Your task to perform on an android device: Add "macbook air" to the cart on amazon Image 0: 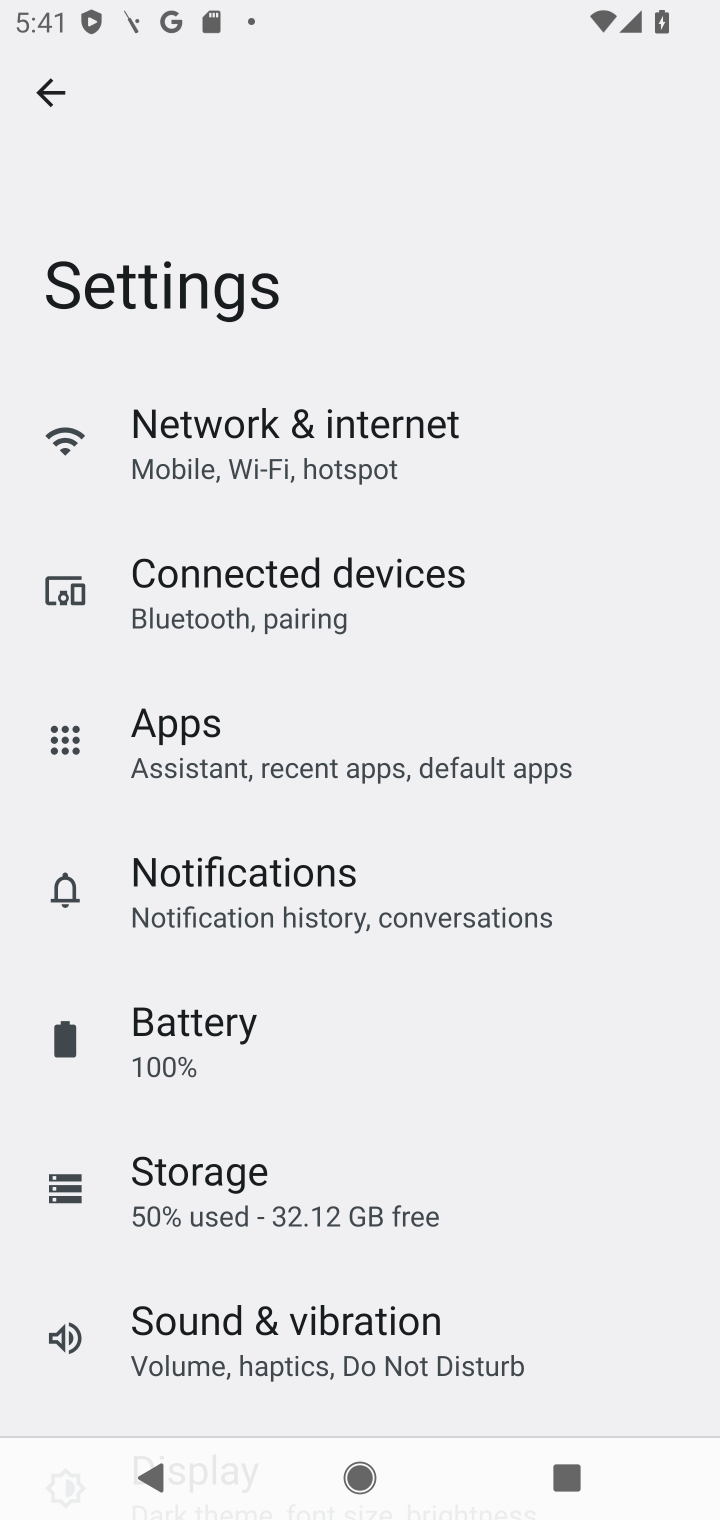
Step 0: press home button
Your task to perform on an android device: Add "macbook air" to the cart on amazon Image 1: 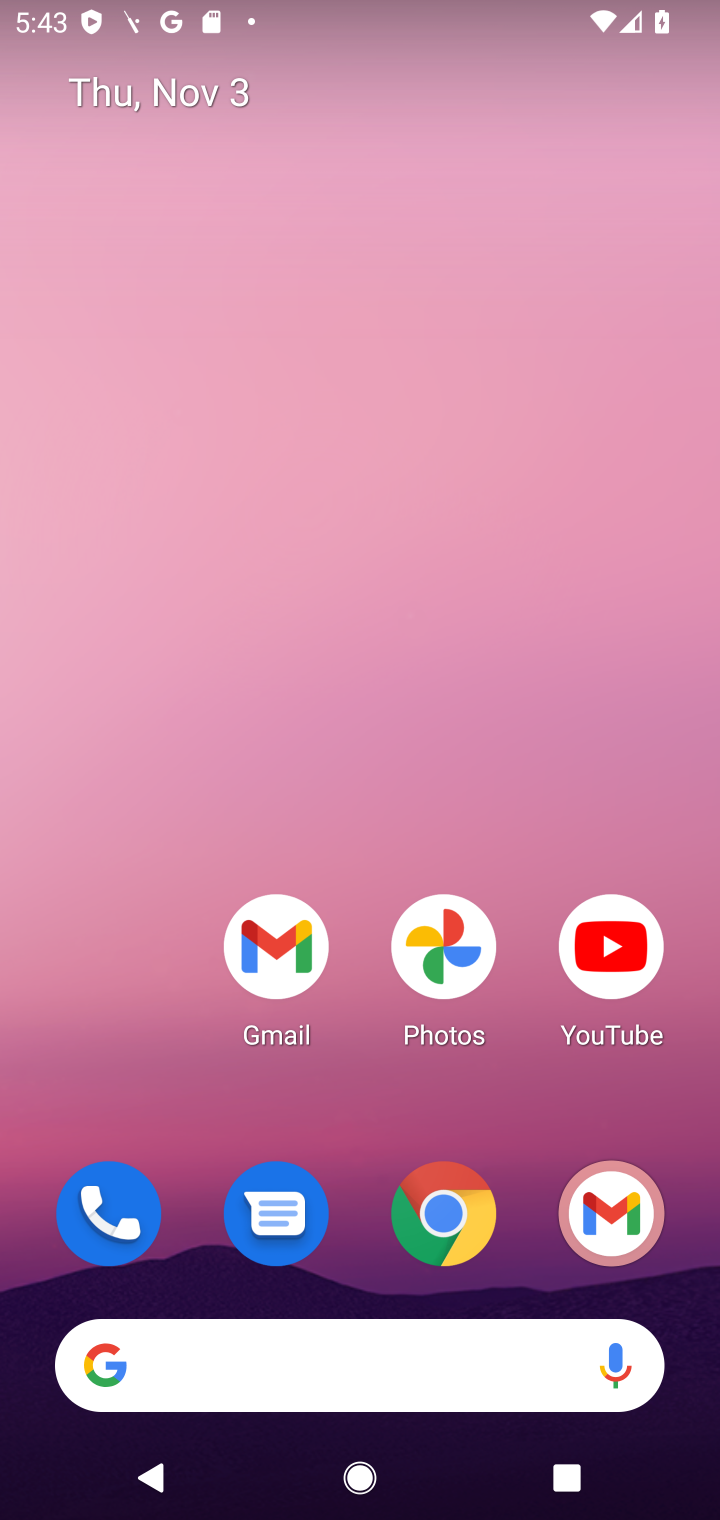
Step 1: click (457, 1225)
Your task to perform on an android device: Add "macbook air" to the cart on amazon Image 2: 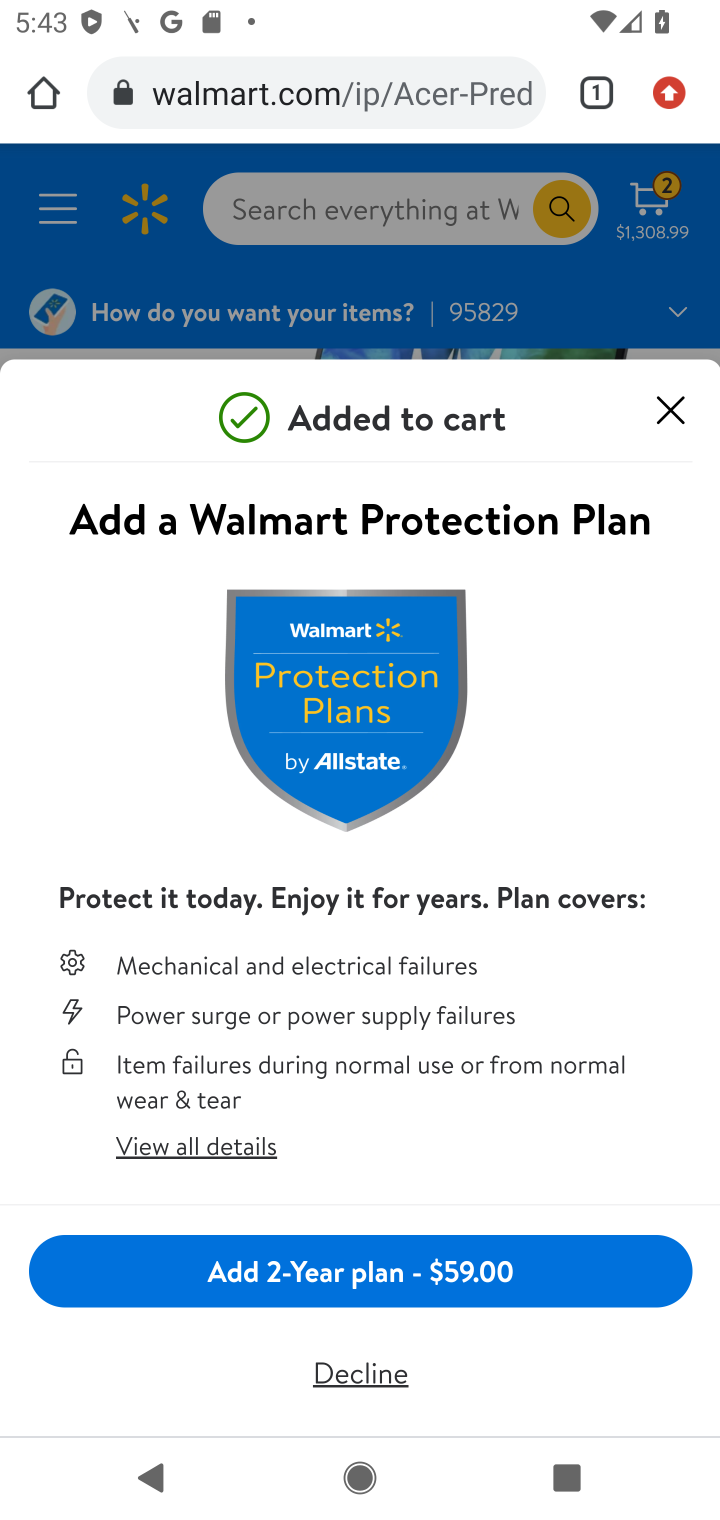
Step 2: click (287, 100)
Your task to perform on an android device: Add "macbook air" to the cart on amazon Image 3: 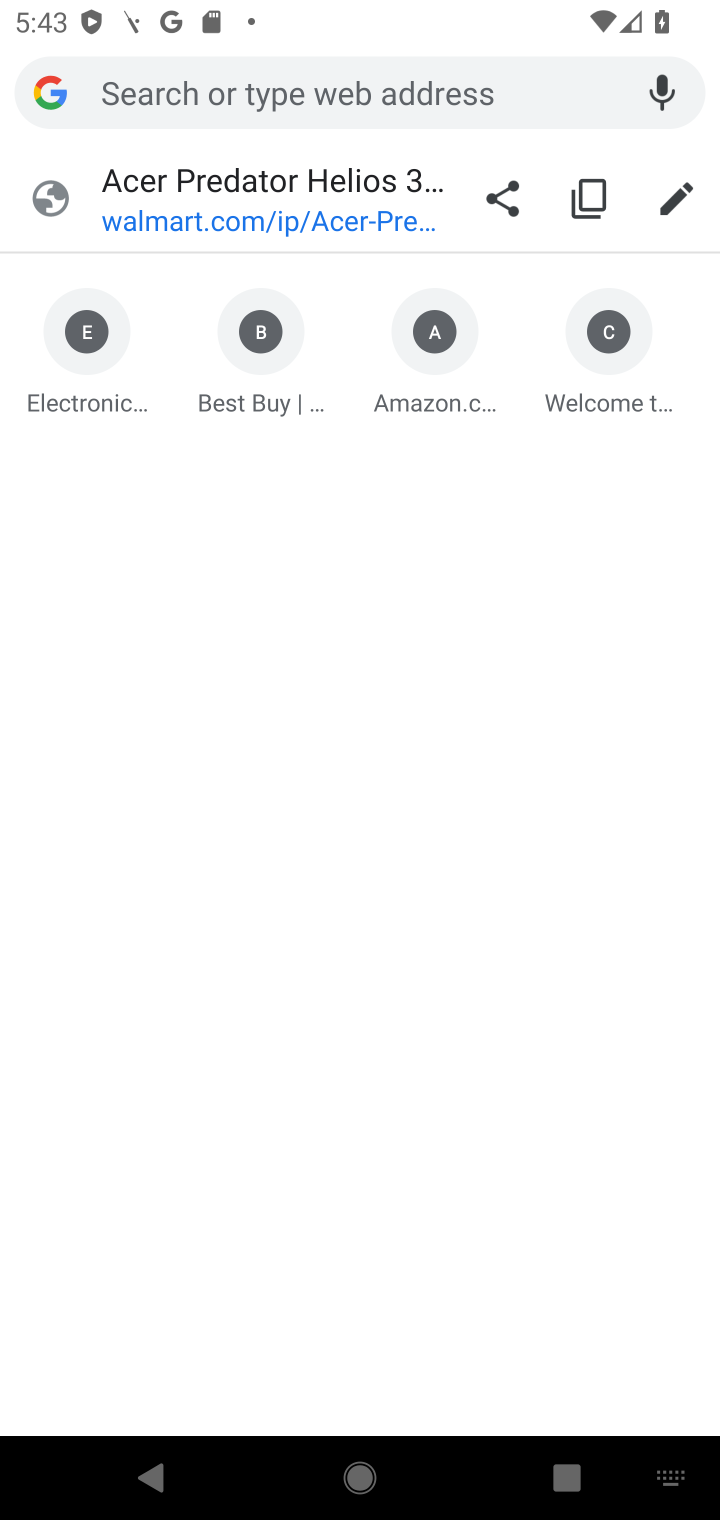
Step 3: click (443, 344)
Your task to perform on an android device: Add "macbook air" to the cart on amazon Image 4: 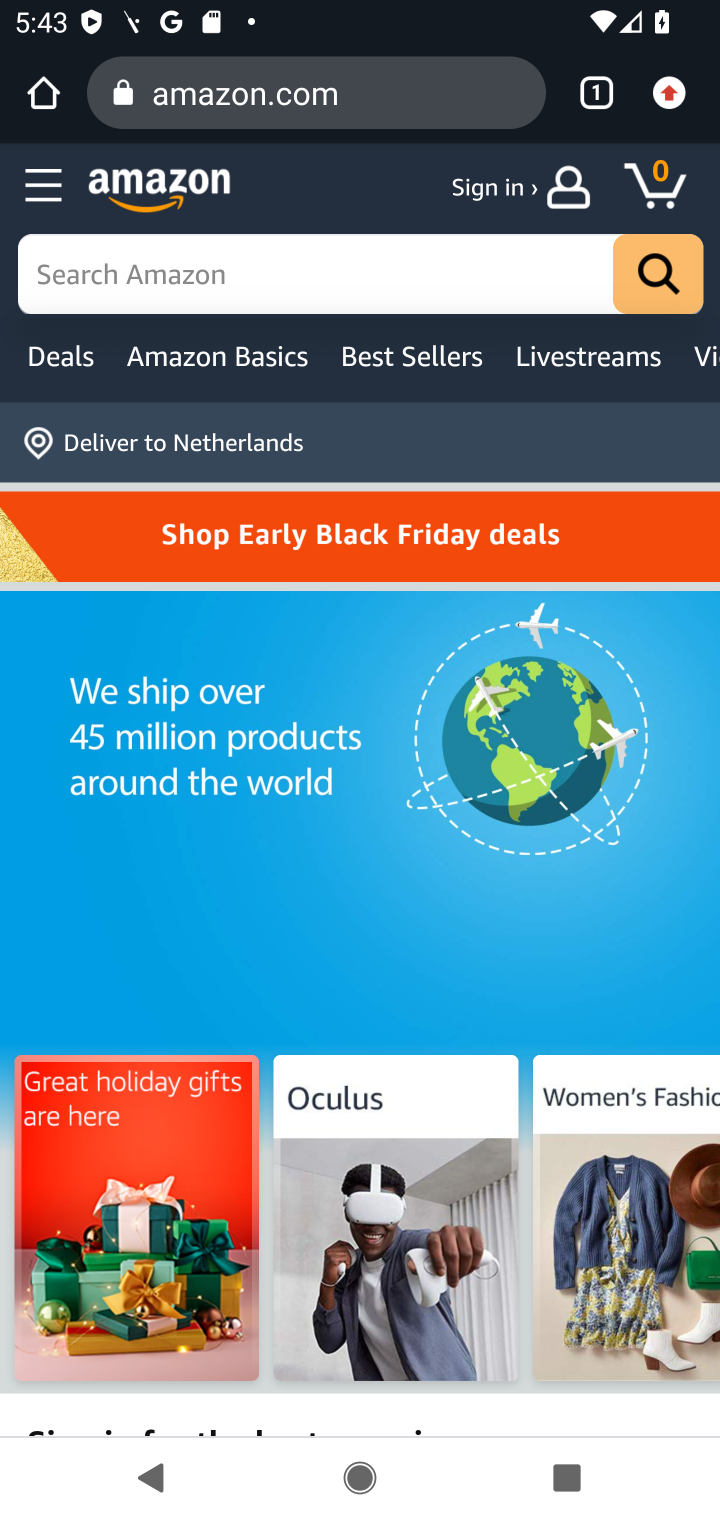
Step 4: click (223, 277)
Your task to perform on an android device: Add "macbook air" to the cart on amazon Image 5: 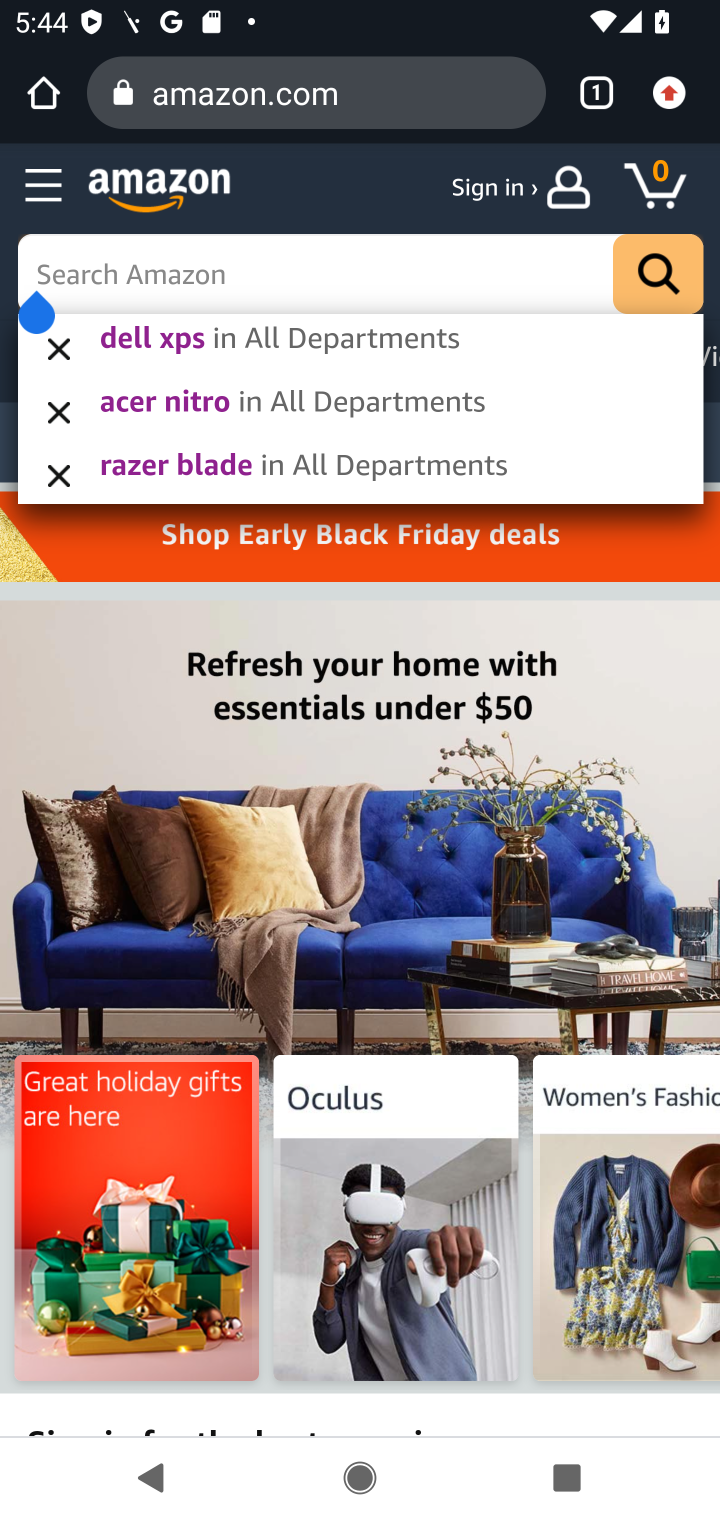
Step 5: type "macbook air"
Your task to perform on an android device: Add "macbook air" to the cart on amazon Image 6: 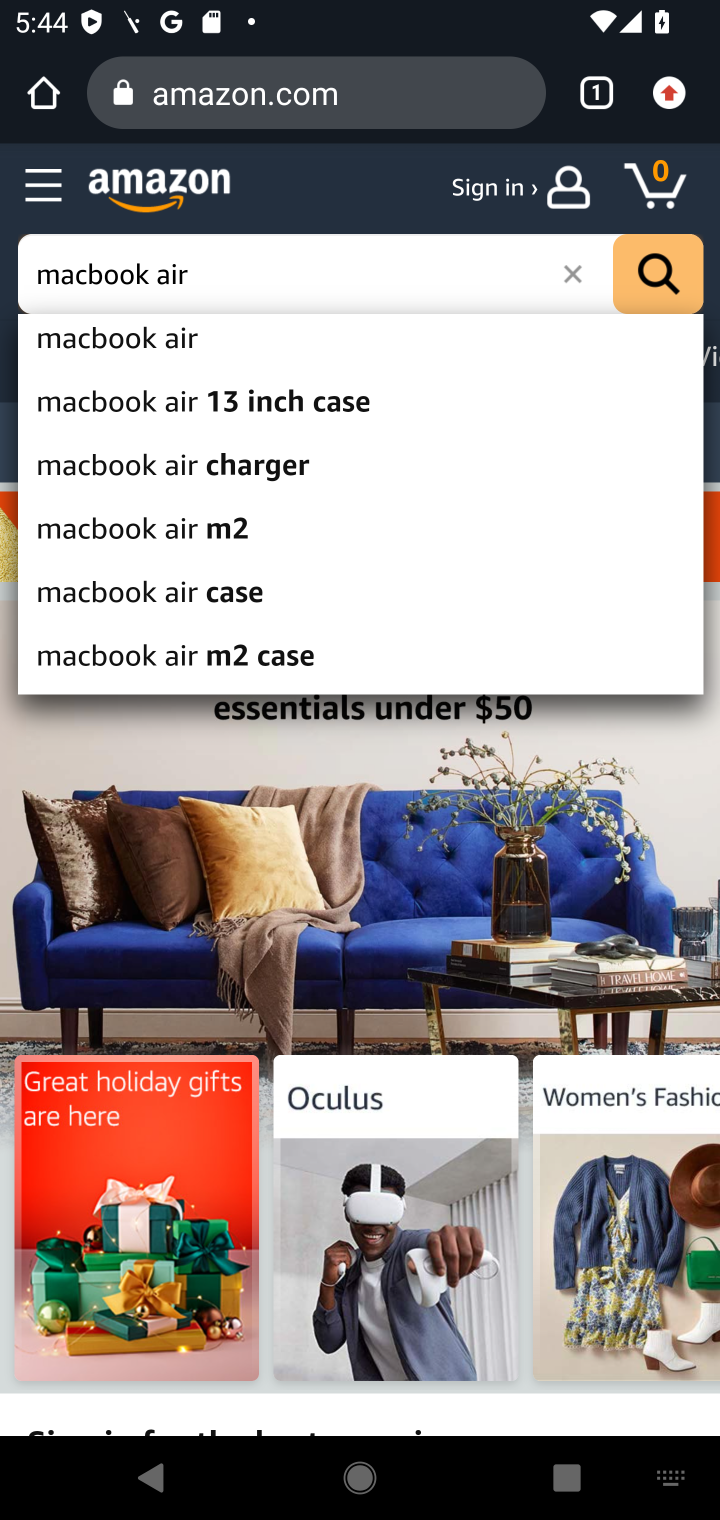
Step 6: click (77, 356)
Your task to perform on an android device: Add "macbook air" to the cart on amazon Image 7: 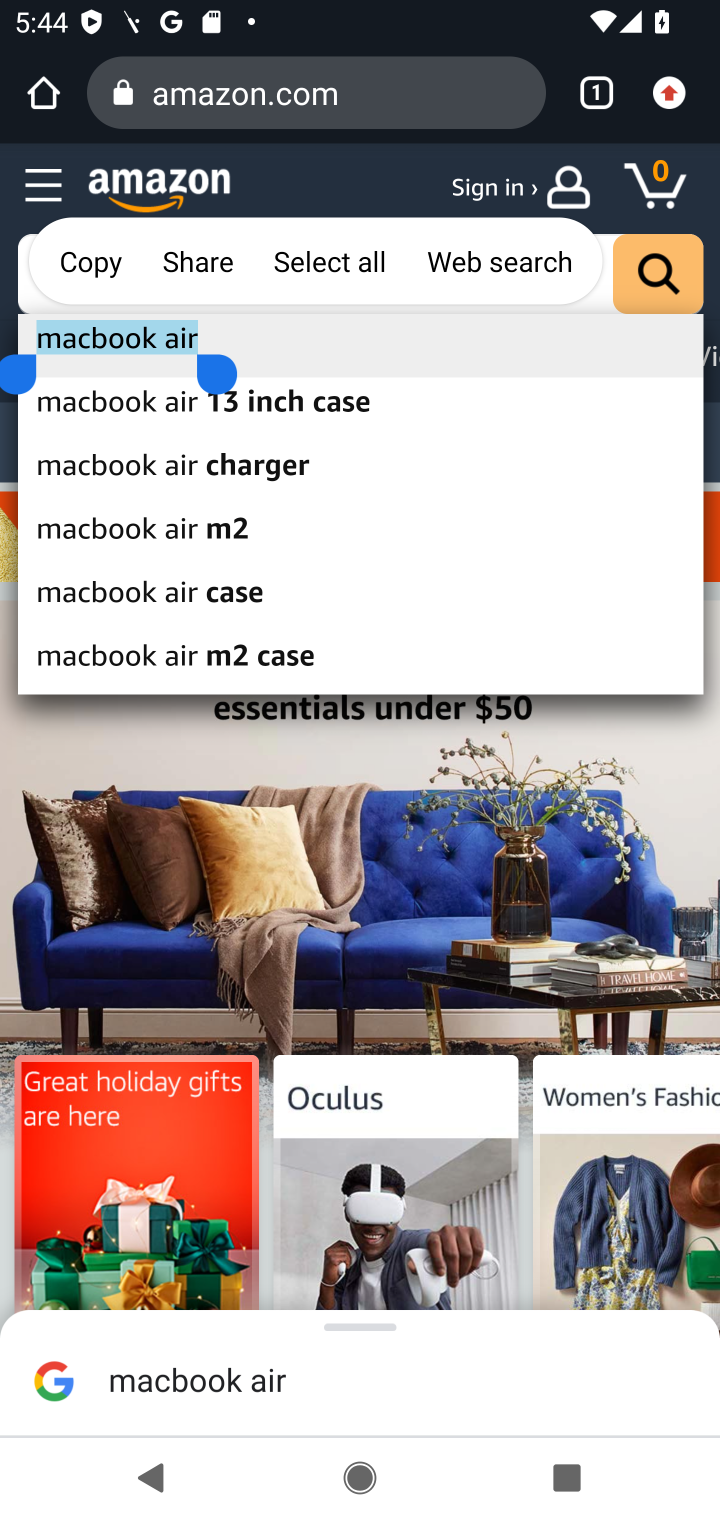
Step 7: click (175, 366)
Your task to perform on an android device: Add "macbook air" to the cart on amazon Image 8: 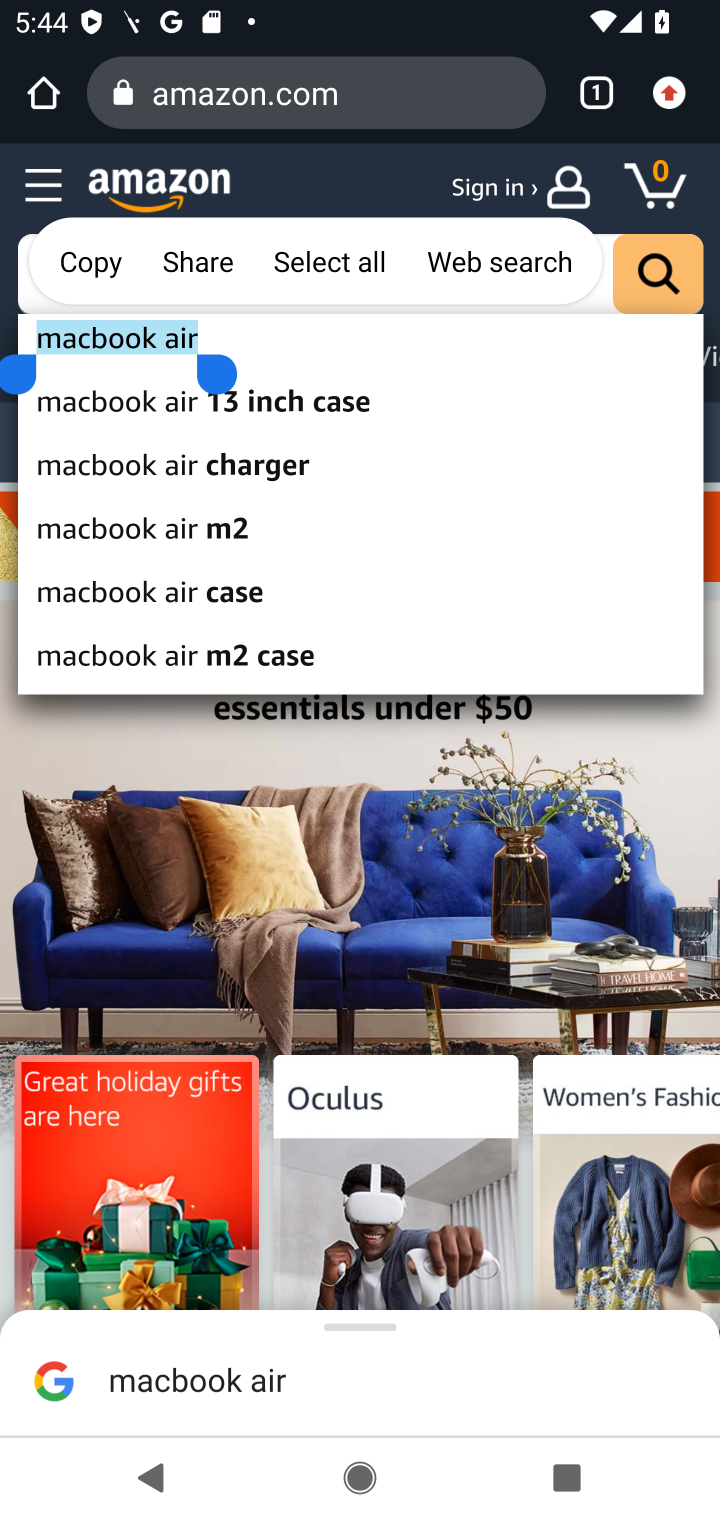
Step 8: click (163, 346)
Your task to perform on an android device: Add "macbook air" to the cart on amazon Image 9: 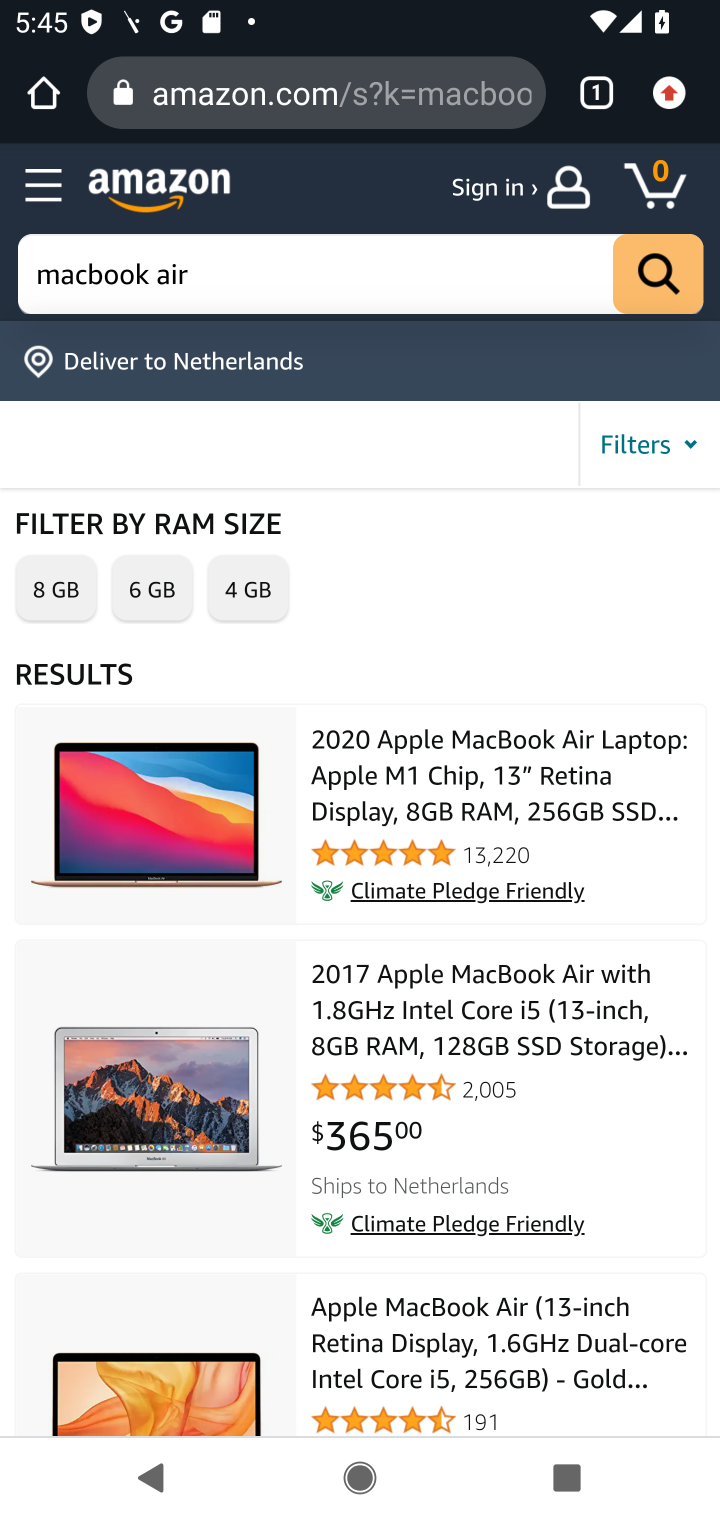
Step 9: click (445, 846)
Your task to perform on an android device: Add "macbook air" to the cart on amazon Image 10: 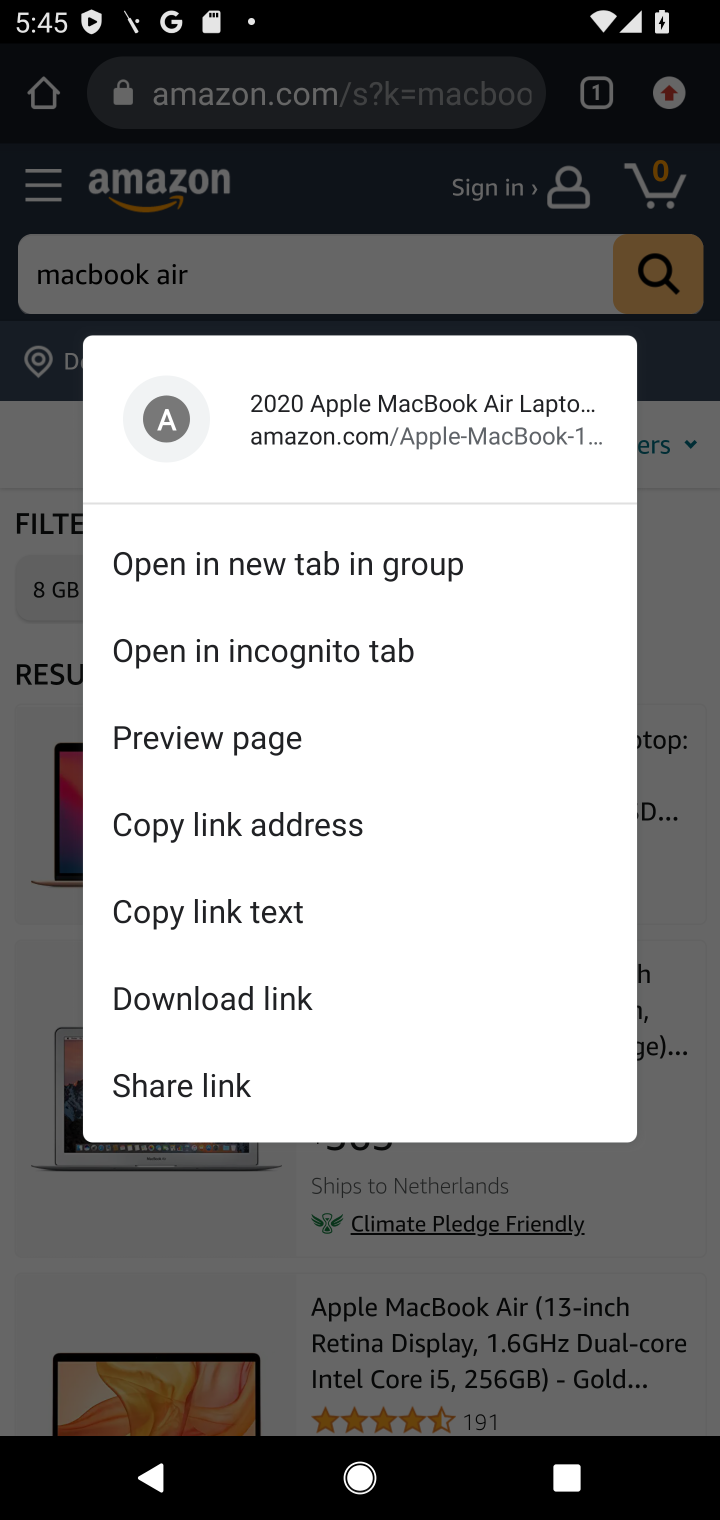
Step 10: click (677, 797)
Your task to perform on an android device: Add "macbook air" to the cart on amazon Image 11: 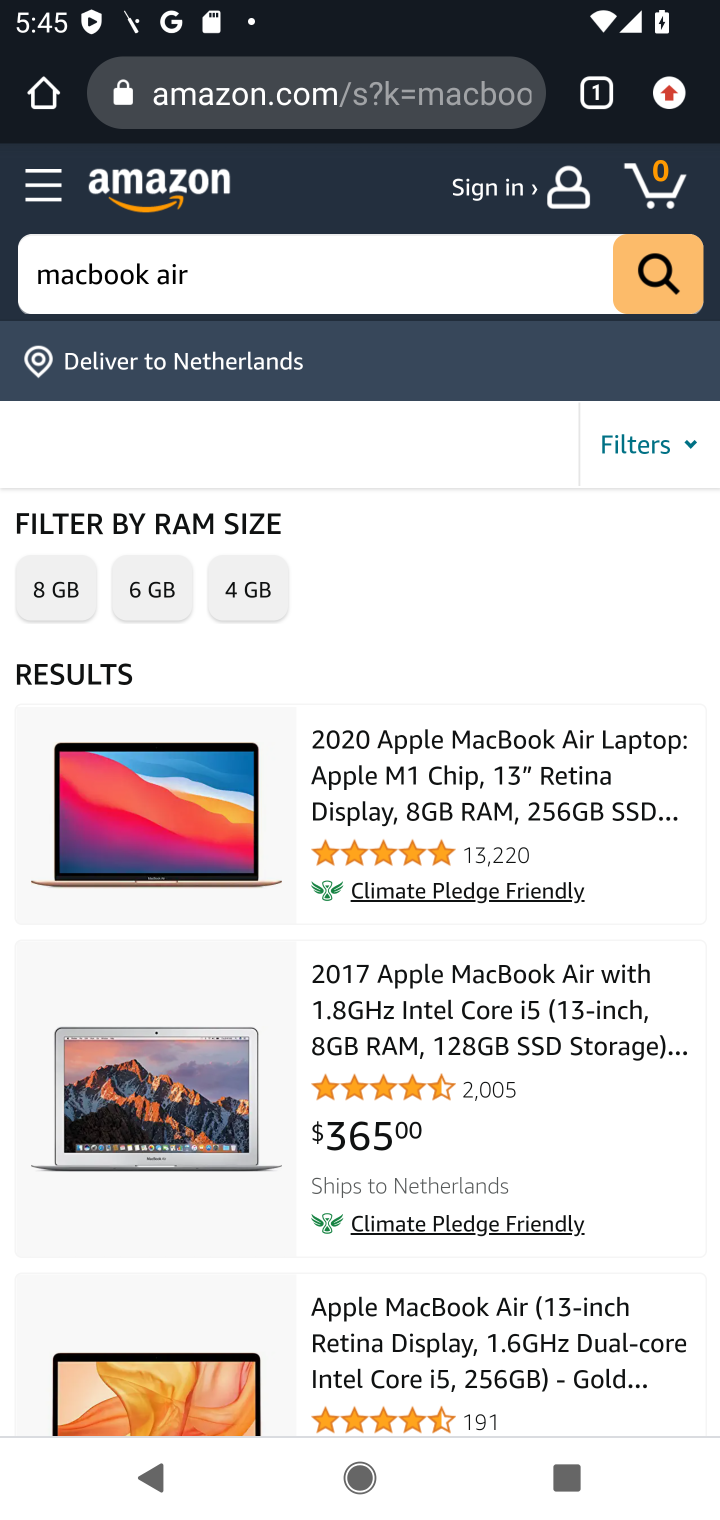
Step 11: click (236, 834)
Your task to perform on an android device: Add "macbook air" to the cart on amazon Image 12: 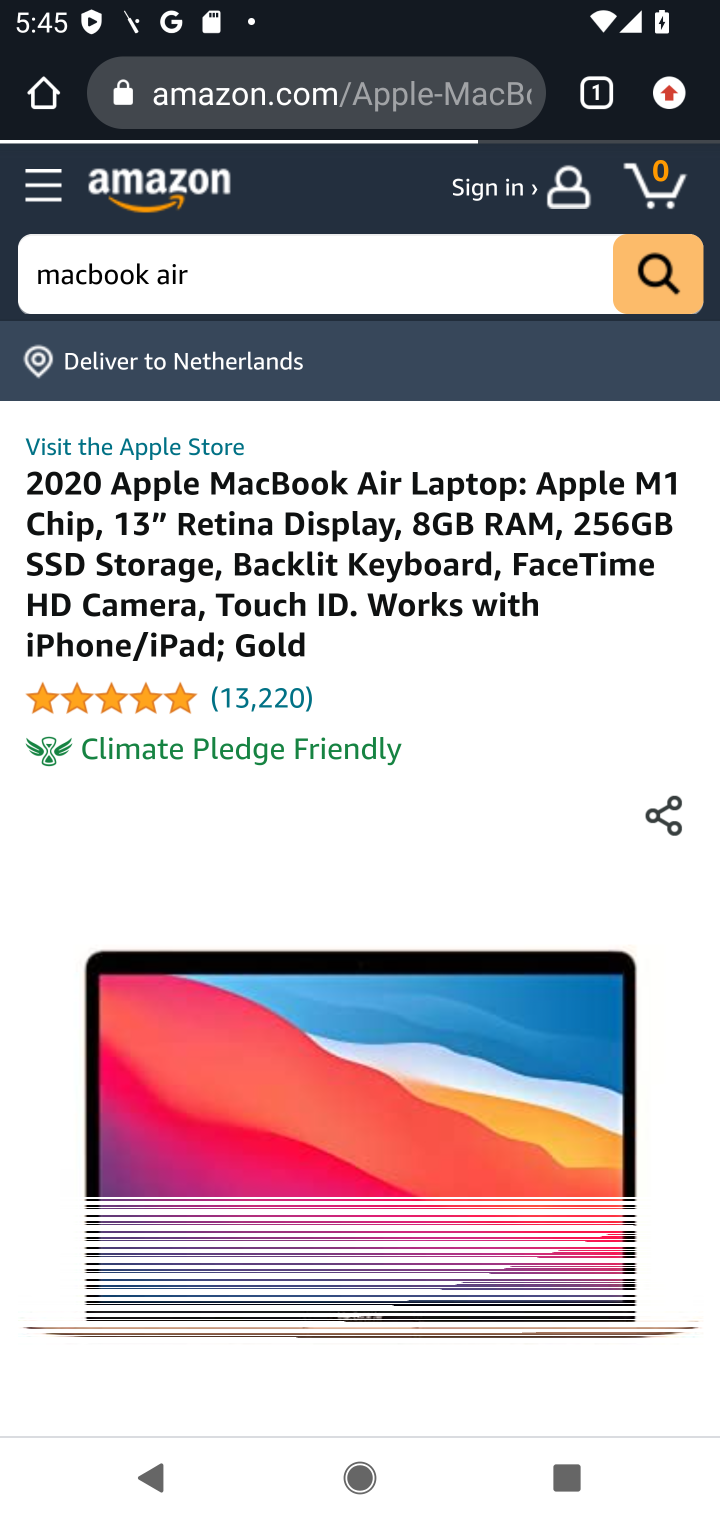
Step 12: drag from (290, 851) to (321, 612)
Your task to perform on an android device: Add "macbook air" to the cart on amazon Image 13: 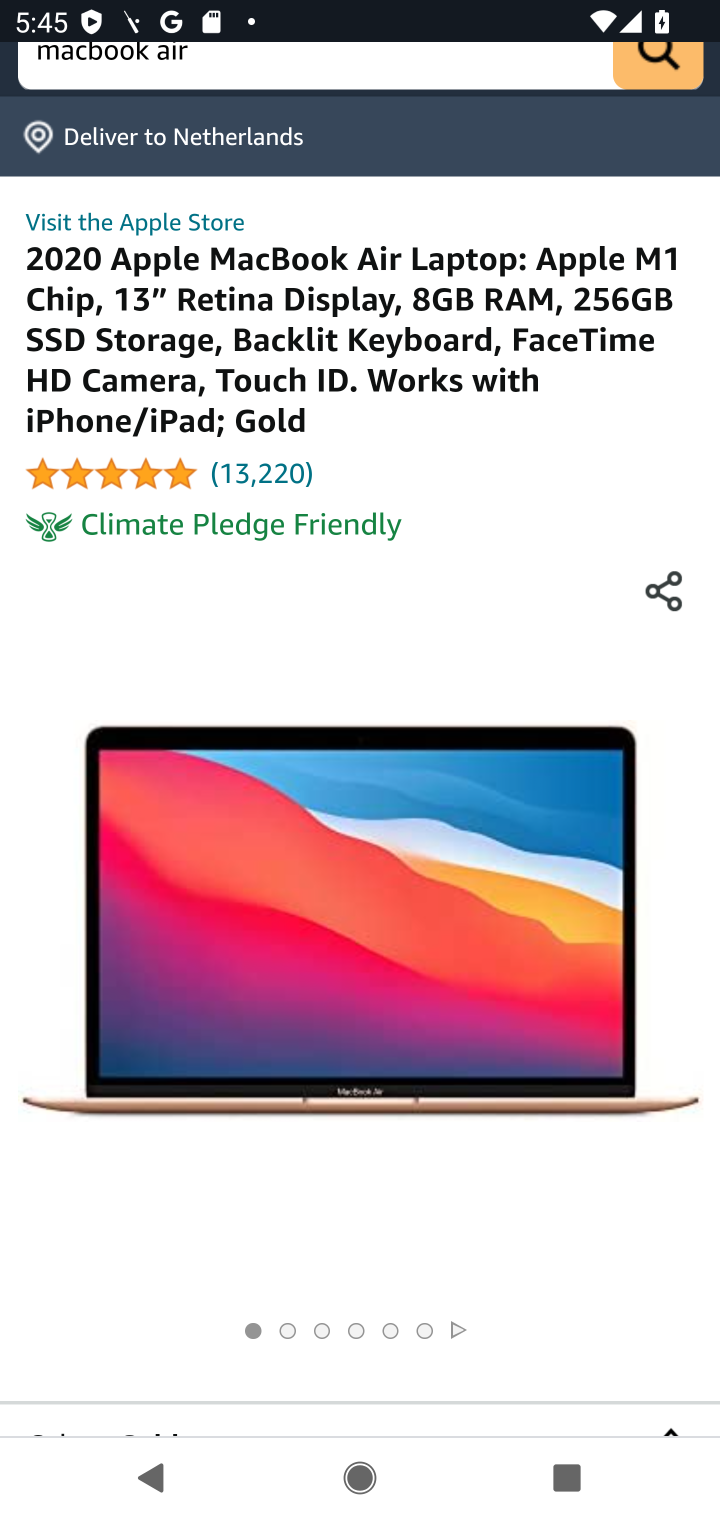
Step 13: drag from (349, 898) to (351, 468)
Your task to perform on an android device: Add "macbook air" to the cart on amazon Image 14: 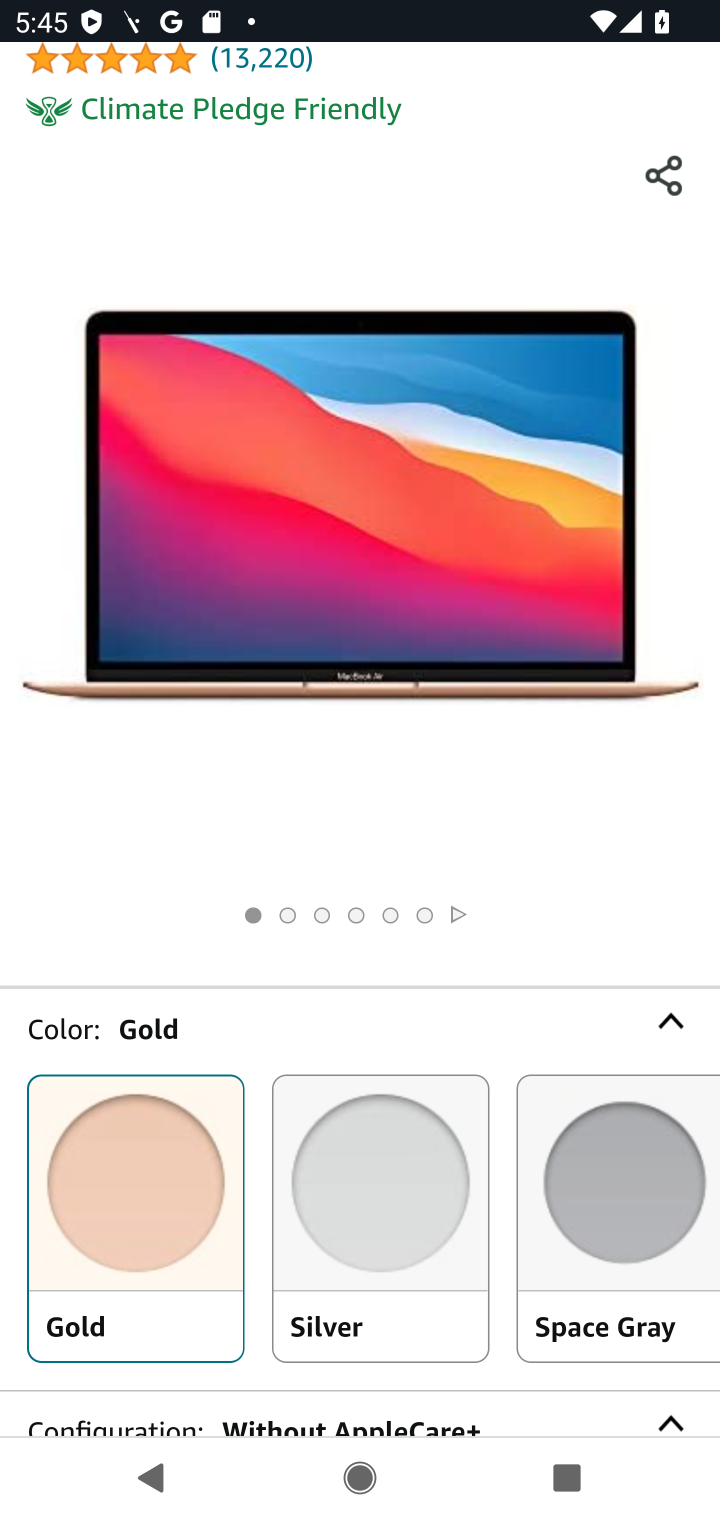
Step 14: drag from (314, 1099) to (340, 482)
Your task to perform on an android device: Add "macbook air" to the cart on amazon Image 15: 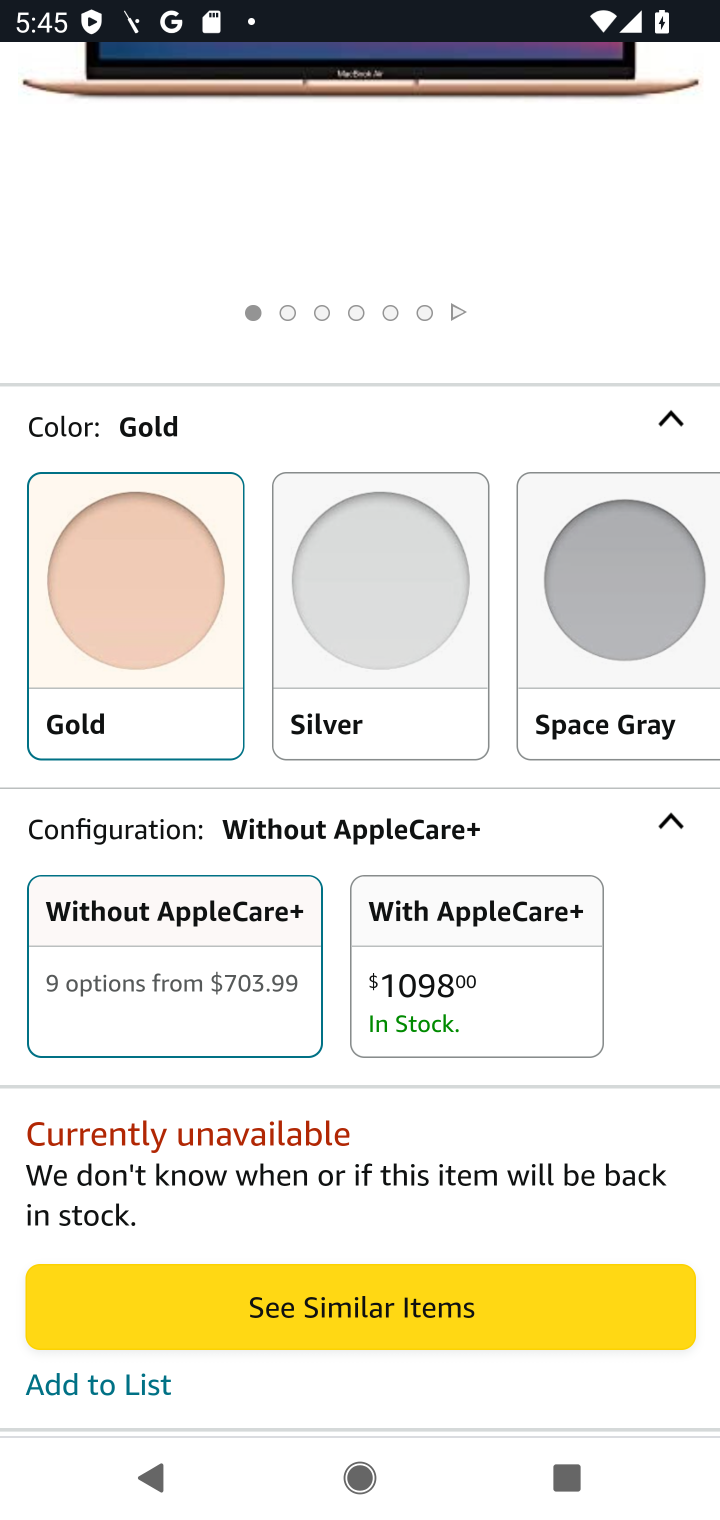
Step 15: drag from (408, 1118) to (428, 642)
Your task to perform on an android device: Add "macbook air" to the cart on amazon Image 16: 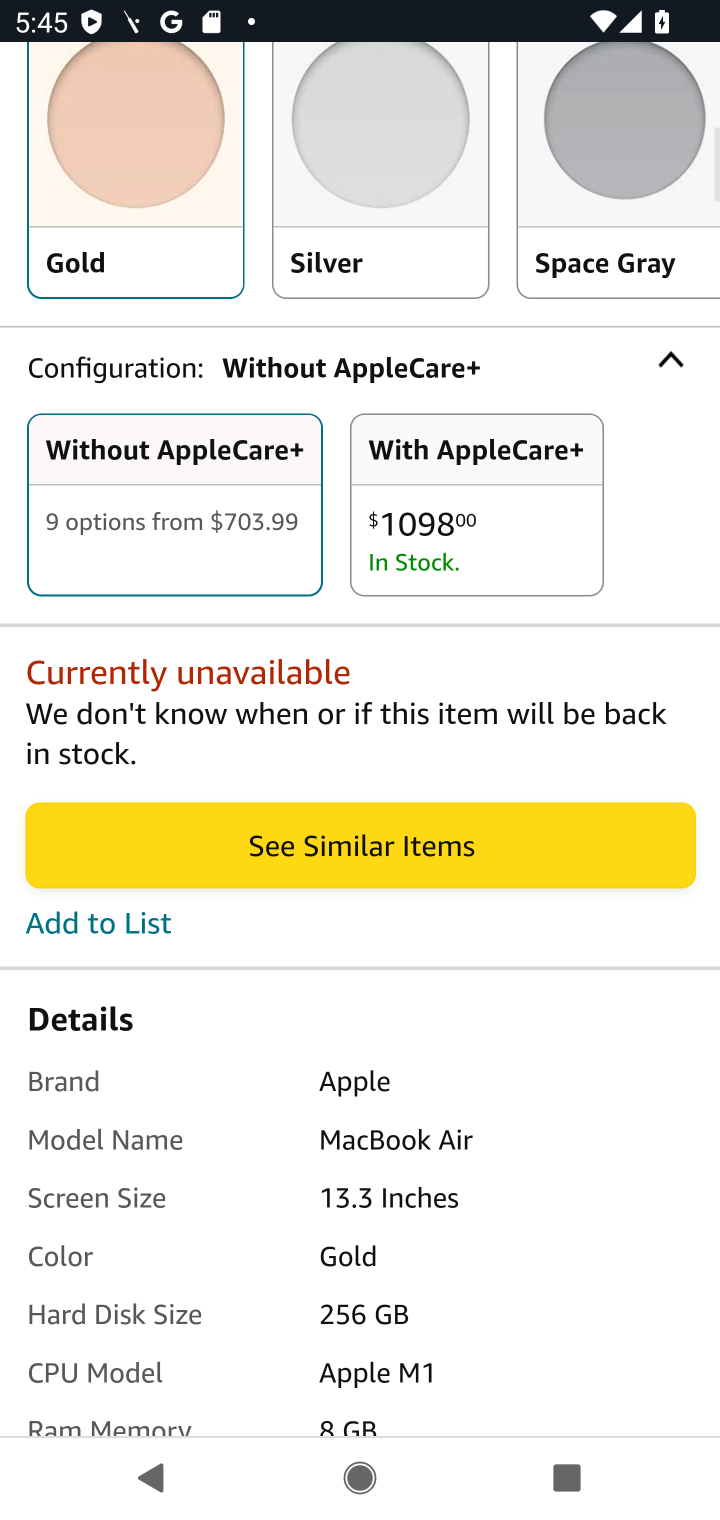
Step 16: drag from (382, 370) to (401, 1364)
Your task to perform on an android device: Add "macbook air" to the cart on amazon Image 17: 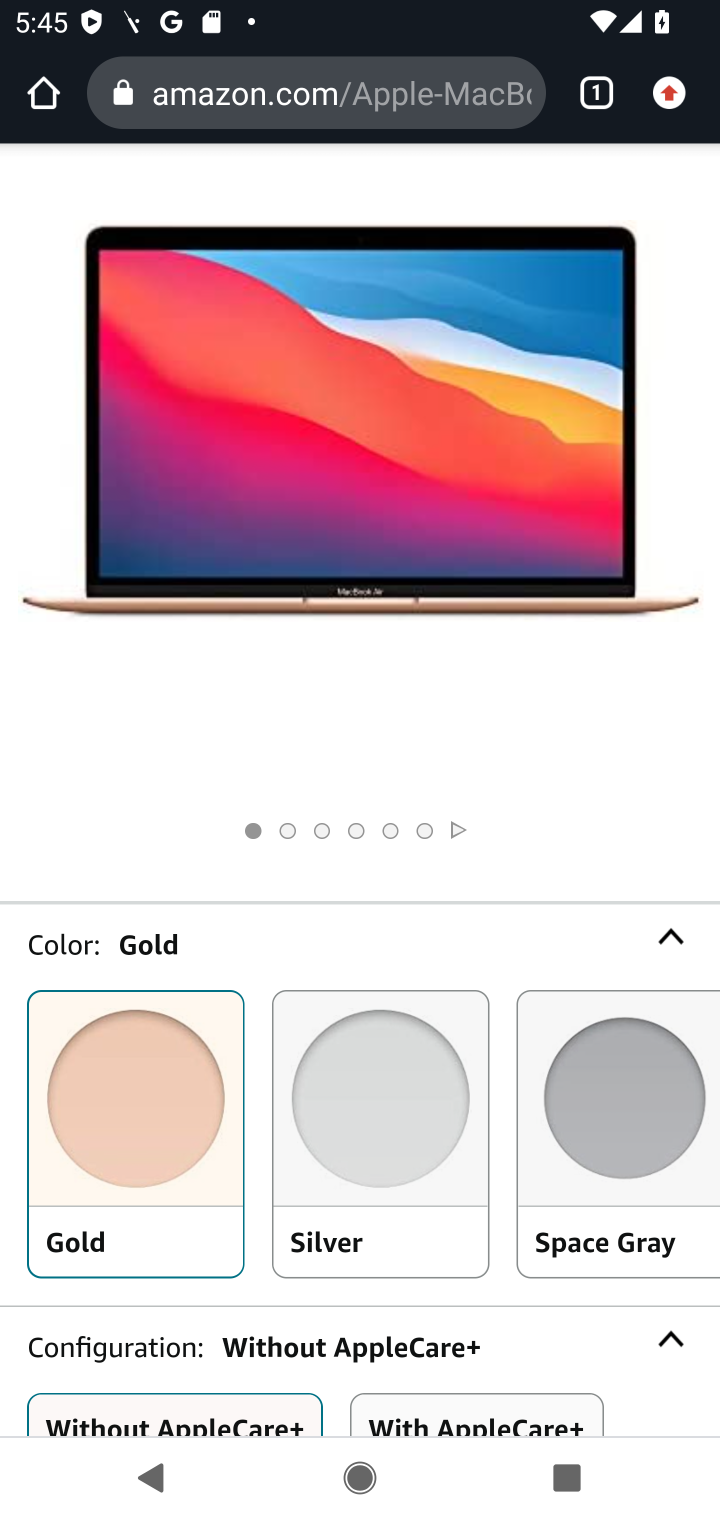
Step 17: drag from (449, 581) to (460, 1106)
Your task to perform on an android device: Add "macbook air" to the cart on amazon Image 18: 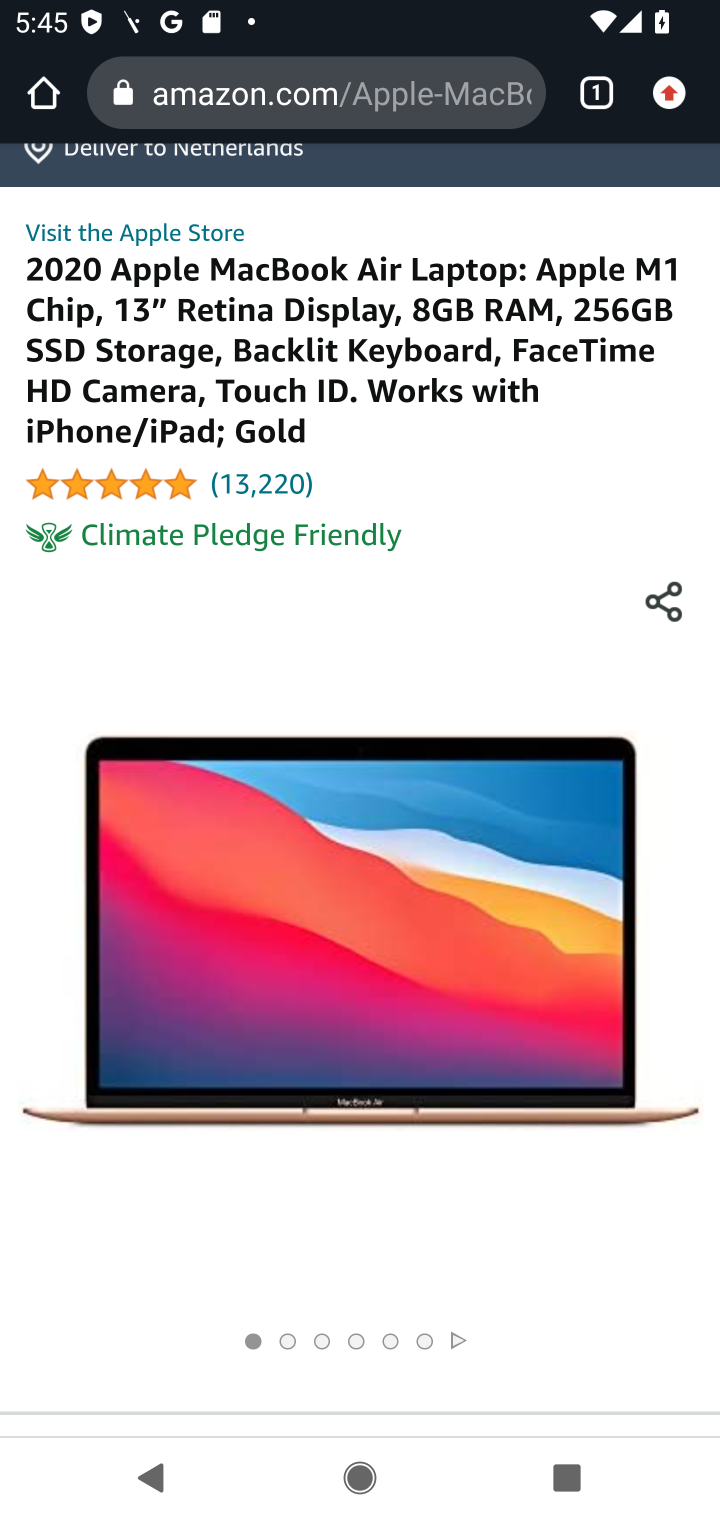
Step 18: press back button
Your task to perform on an android device: Add "macbook air" to the cart on amazon Image 19: 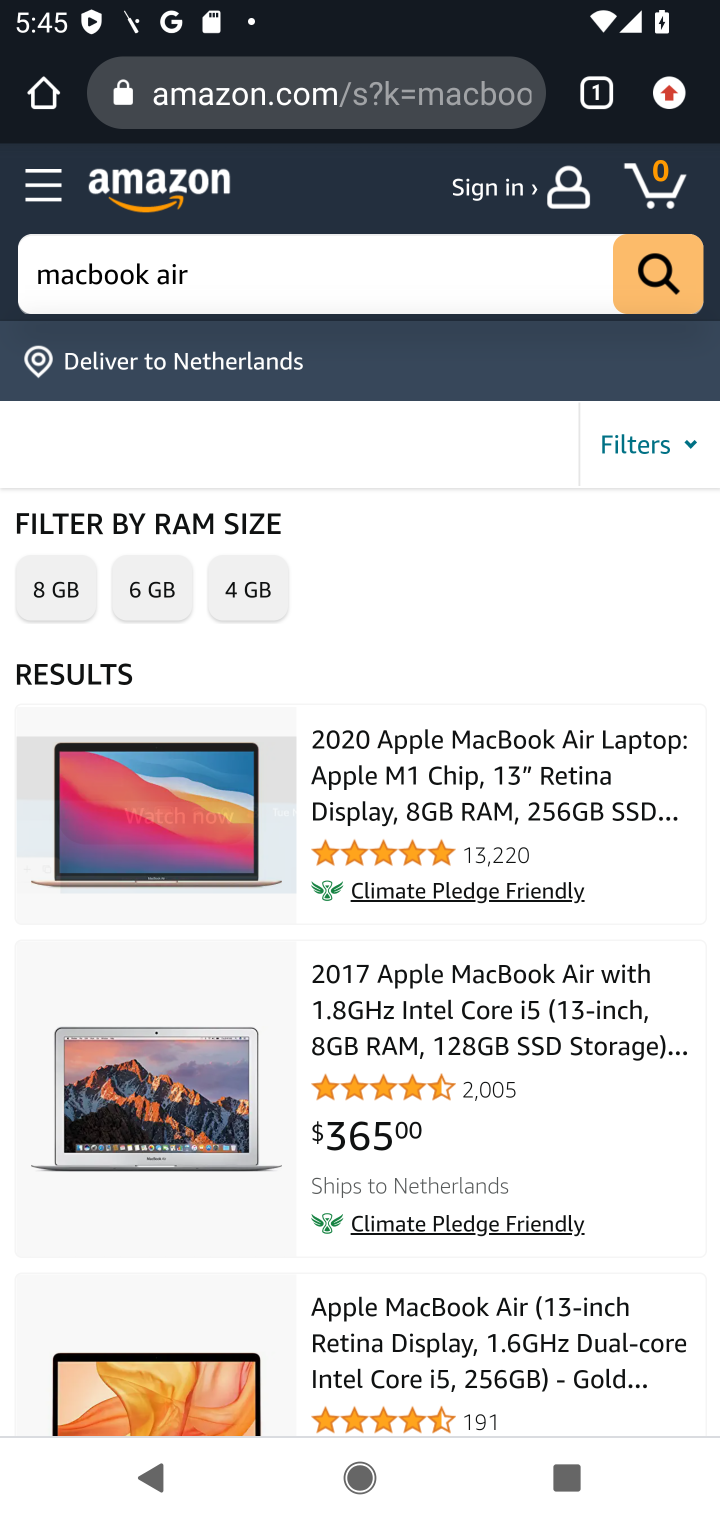
Step 19: click (402, 1063)
Your task to perform on an android device: Add "macbook air" to the cart on amazon Image 20: 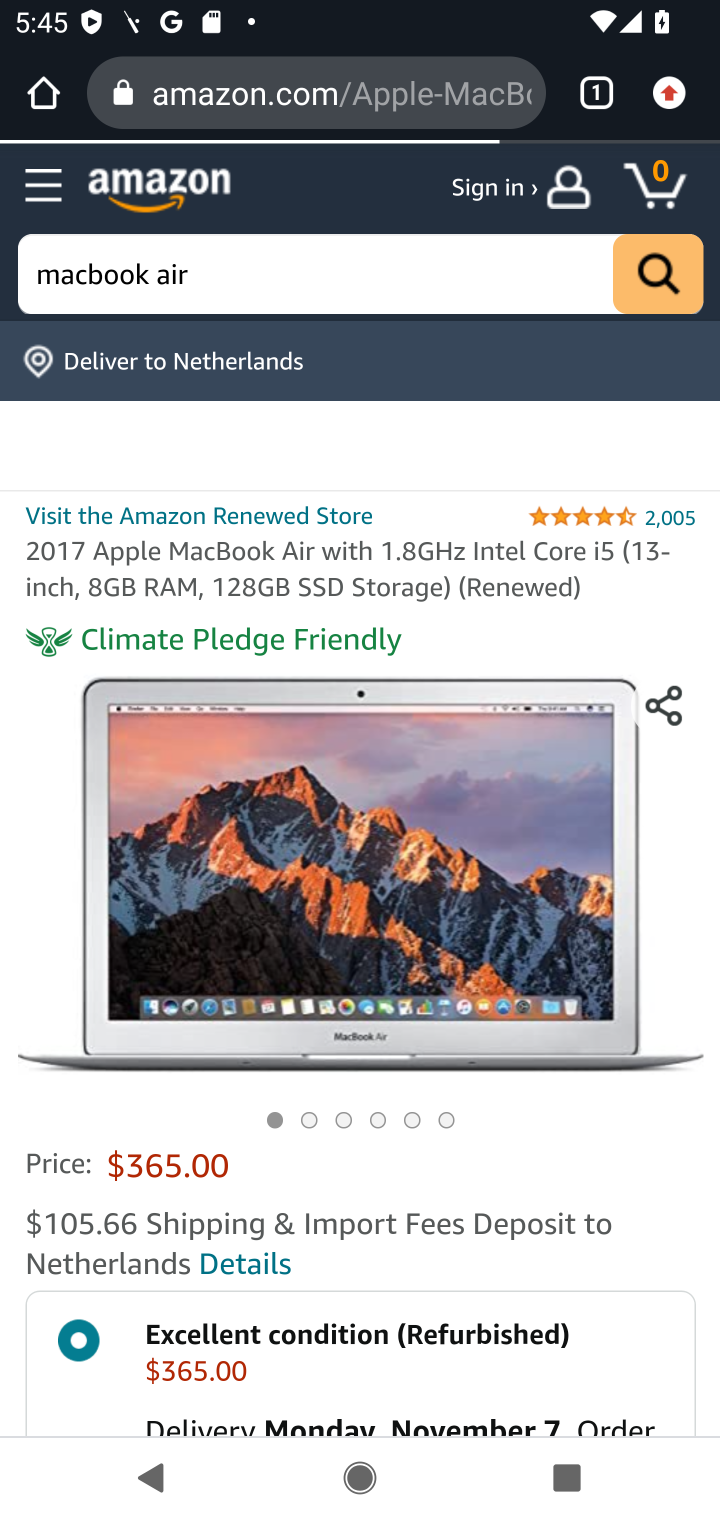
Step 20: drag from (388, 1072) to (414, 334)
Your task to perform on an android device: Add "macbook air" to the cart on amazon Image 21: 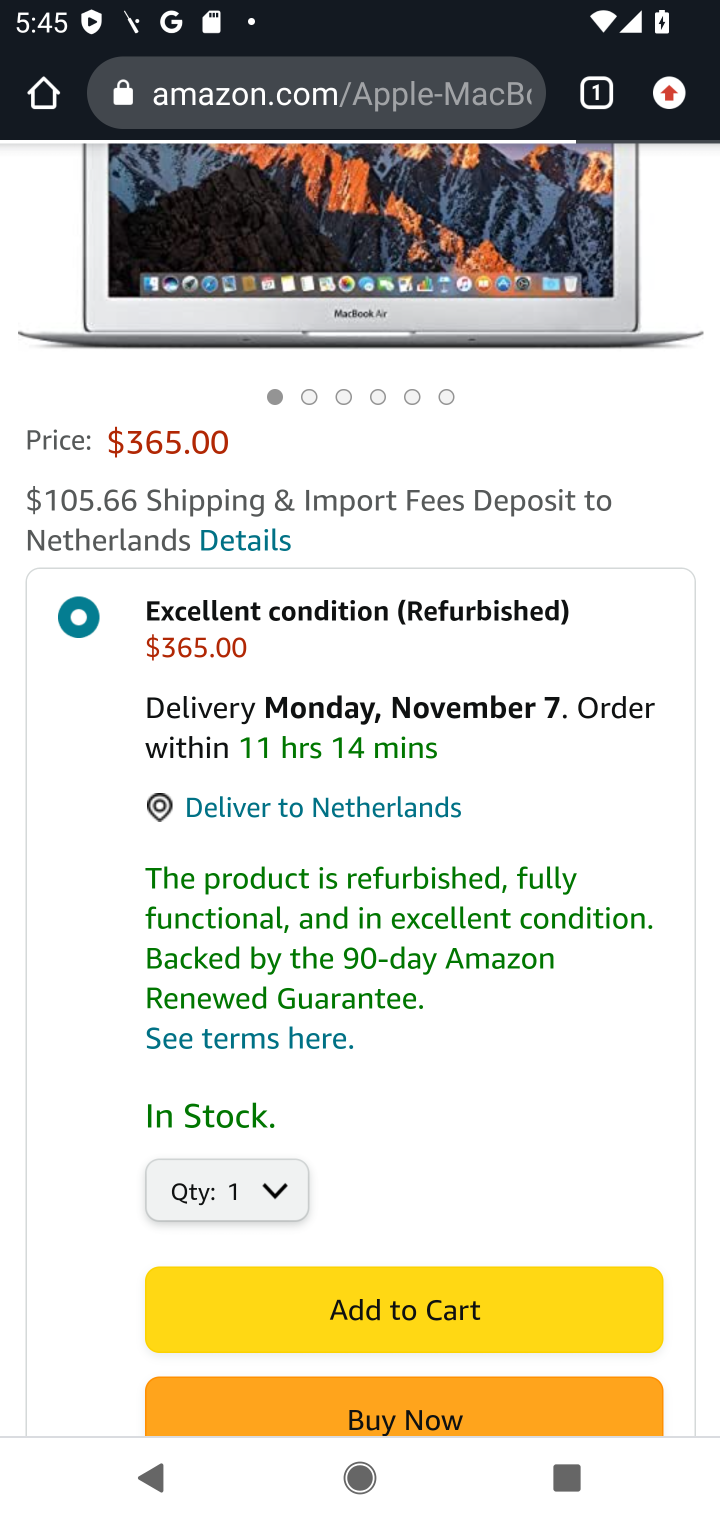
Step 21: click (364, 1308)
Your task to perform on an android device: Add "macbook air" to the cart on amazon Image 22: 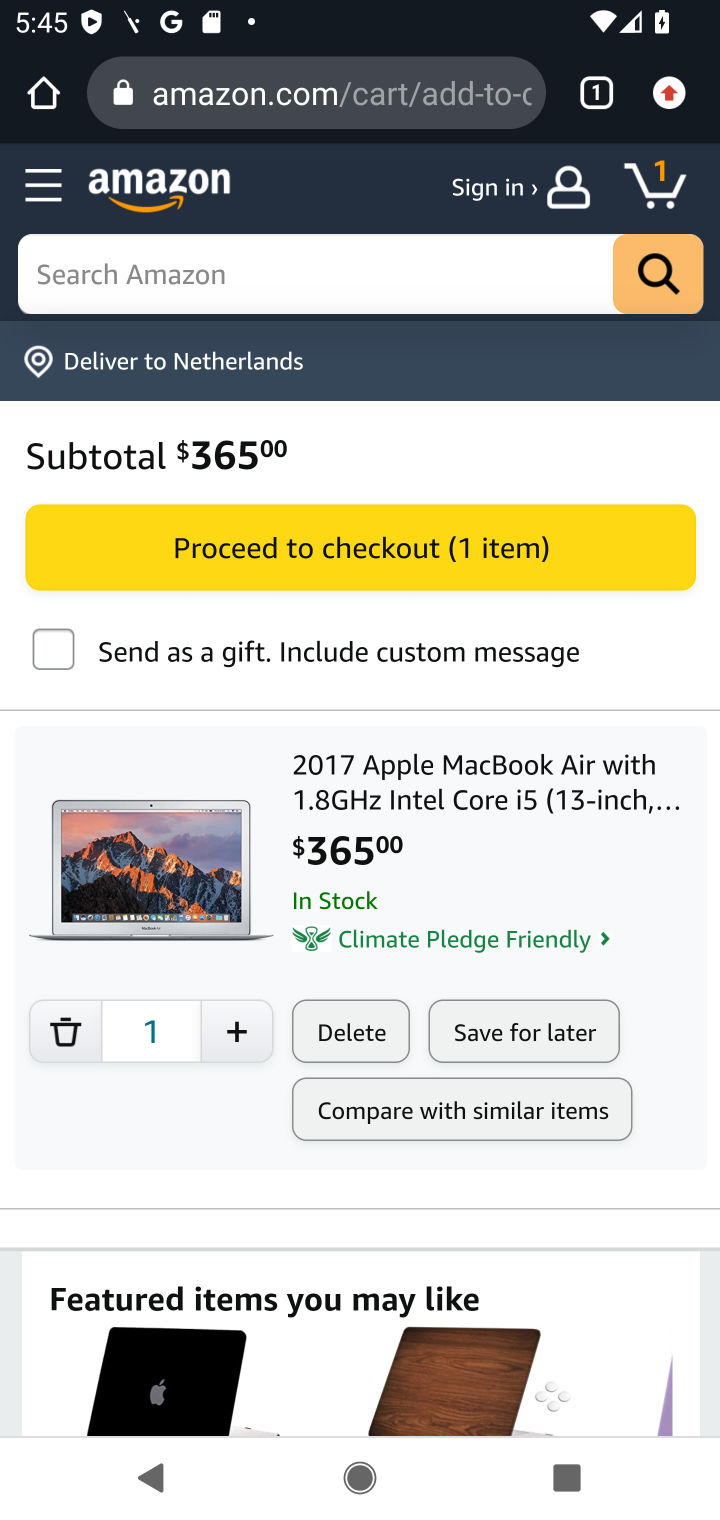
Step 22: task complete